Your task to perform on an android device: delete browsing data in the chrome app Image 0: 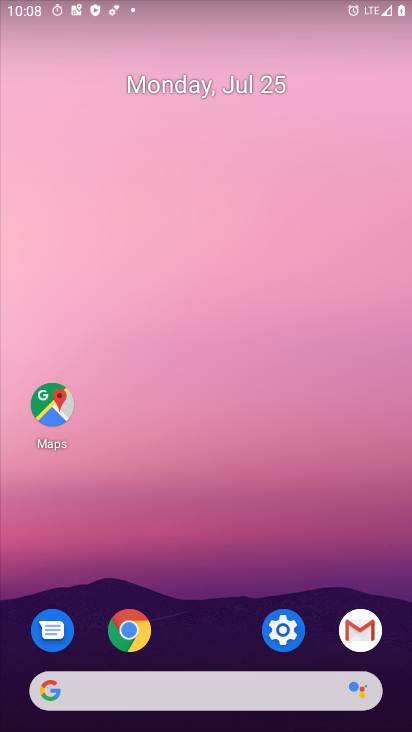
Step 0: click (111, 635)
Your task to perform on an android device: delete browsing data in the chrome app Image 1: 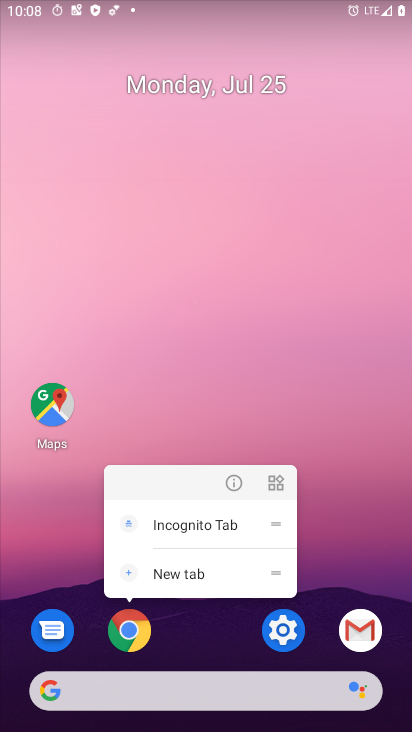
Step 1: click (137, 642)
Your task to perform on an android device: delete browsing data in the chrome app Image 2: 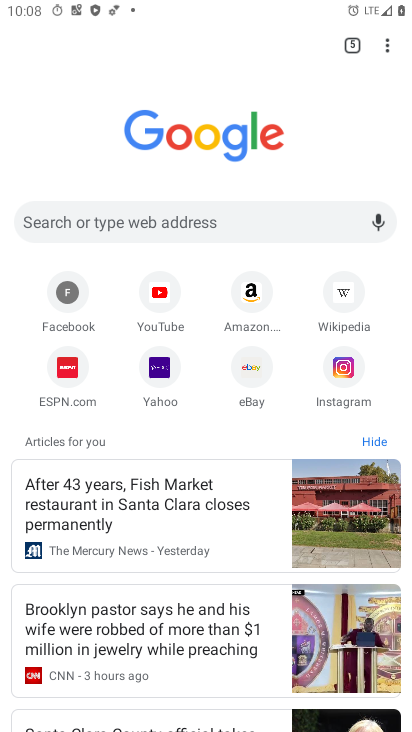
Step 2: click (389, 53)
Your task to perform on an android device: delete browsing data in the chrome app Image 3: 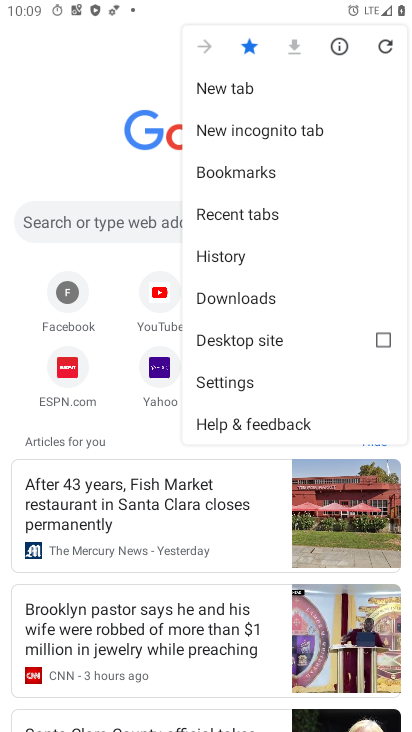
Step 3: click (216, 257)
Your task to perform on an android device: delete browsing data in the chrome app Image 4: 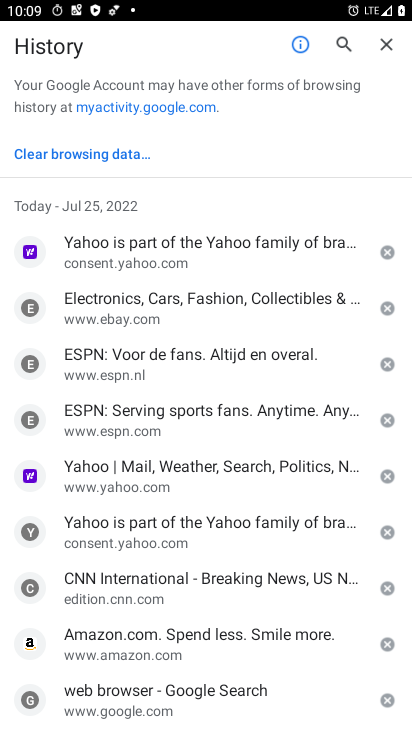
Step 4: click (71, 151)
Your task to perform on an android device: delete browsing data in the chrome app Image 5: 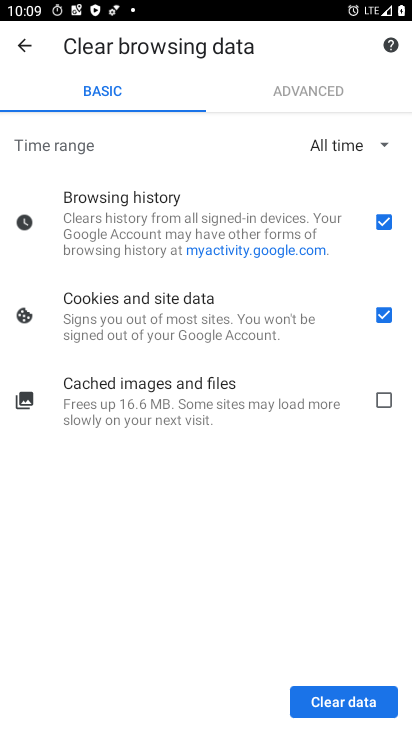
Step 5: click (368, 701)
Your task to perform on an android device: delete browsing data in the chrome app Image 6: 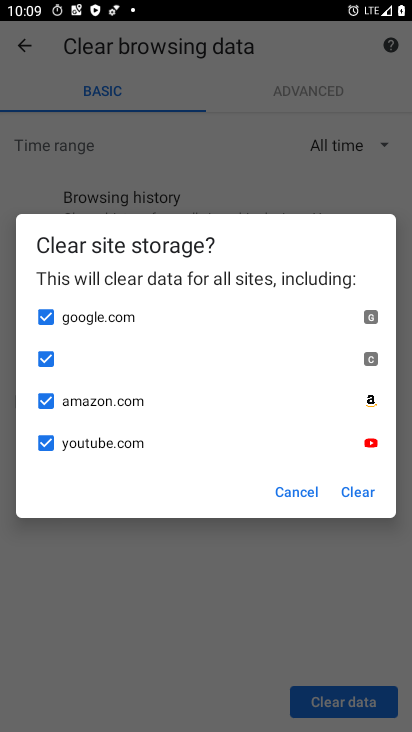
Step 6: click (359, 493)
Your task to perform on an android device: delete browsing data in the chrome app Image 7: 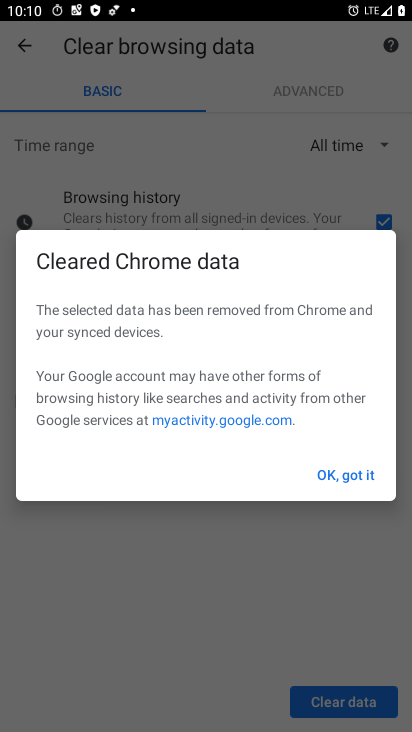
Step 7: task complete